Your task to perform on an android device: View the shopping cart on walmart.com. Add "amazon basics triple a" to the cart on walmart.com, then select checkout. Image 0: 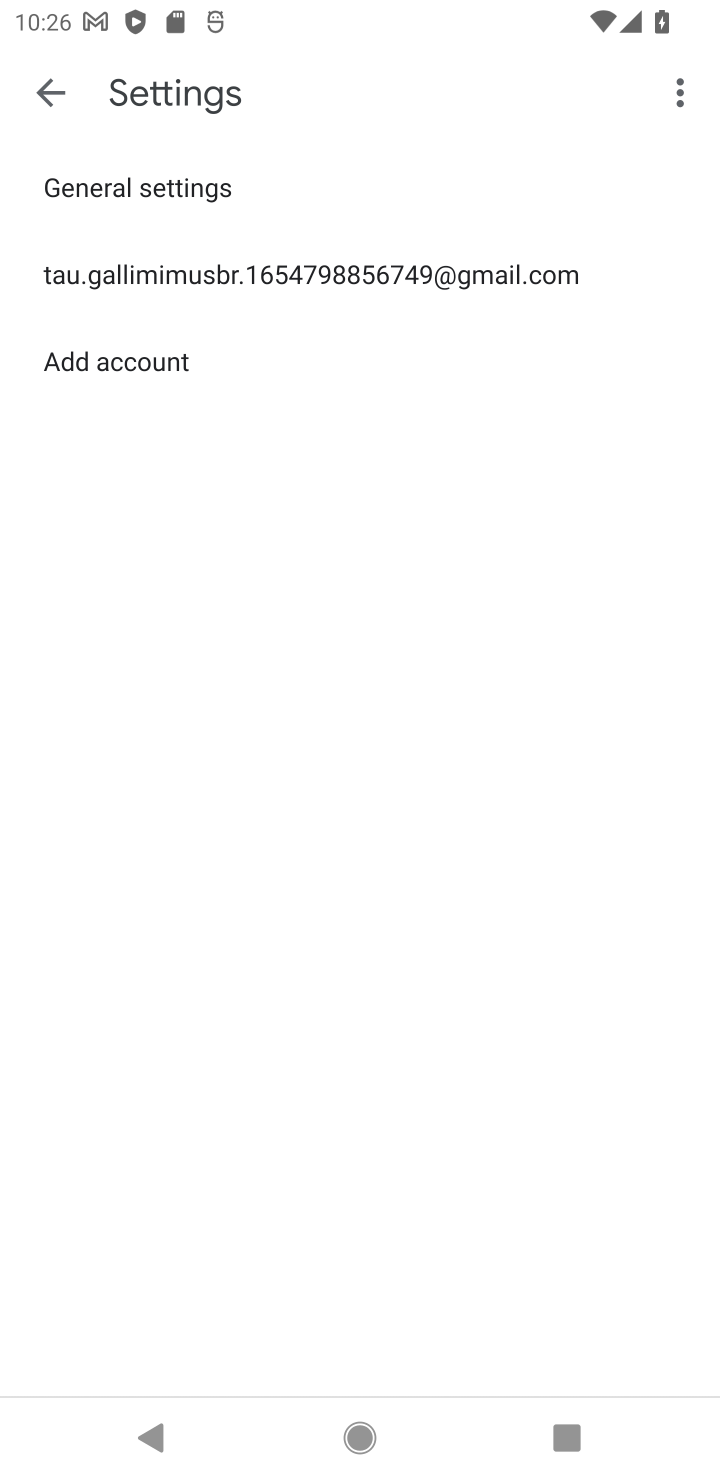
Step 0: press home button
Your task to perform on an android device: View the shopping cart on walmart.com. Add "amazon basics triple a" to the cart on walmart.com, then select checkout. Image 1: 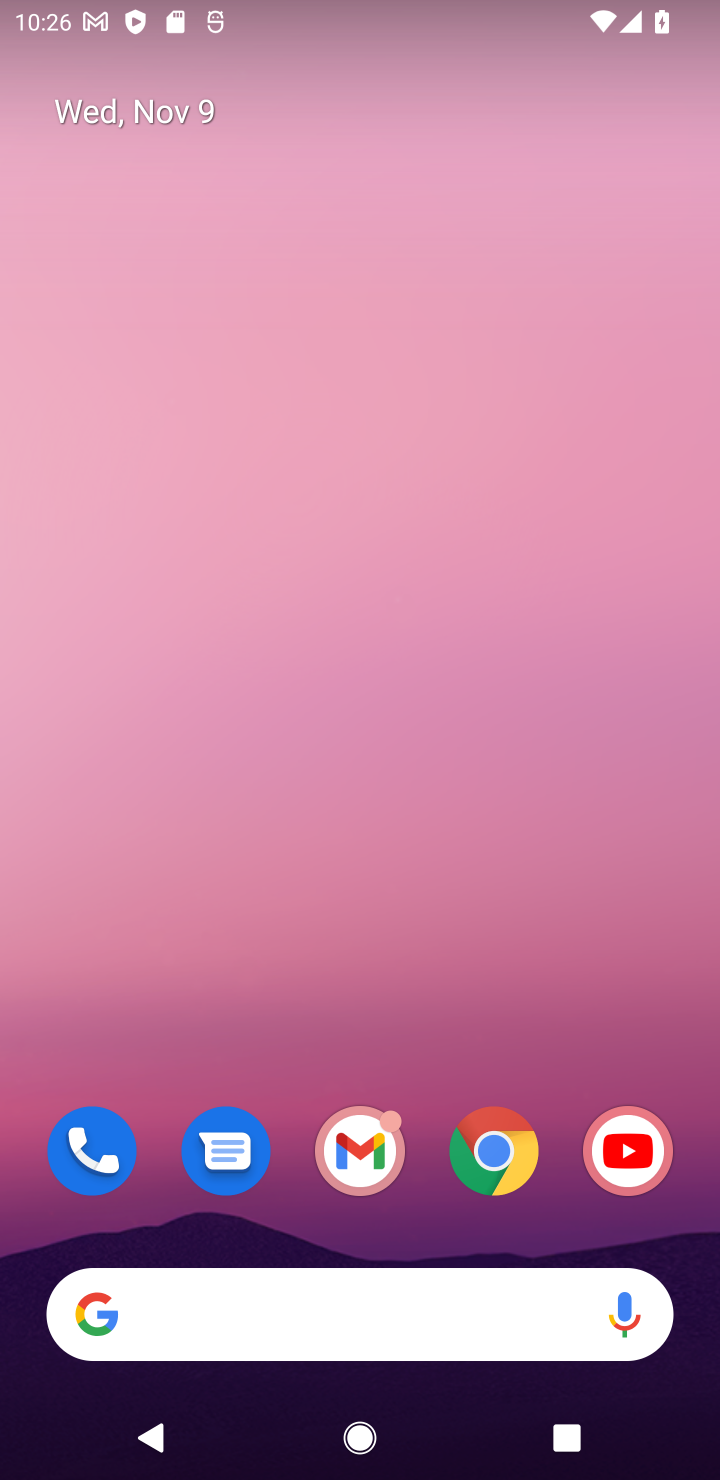
Step 1: click (490, 1144)
Your task to perform on an android device: View the shopping cart on walmart.com. Add "amazon basics triple a" to the cart on walmart.com, then select checkout. Image 2: 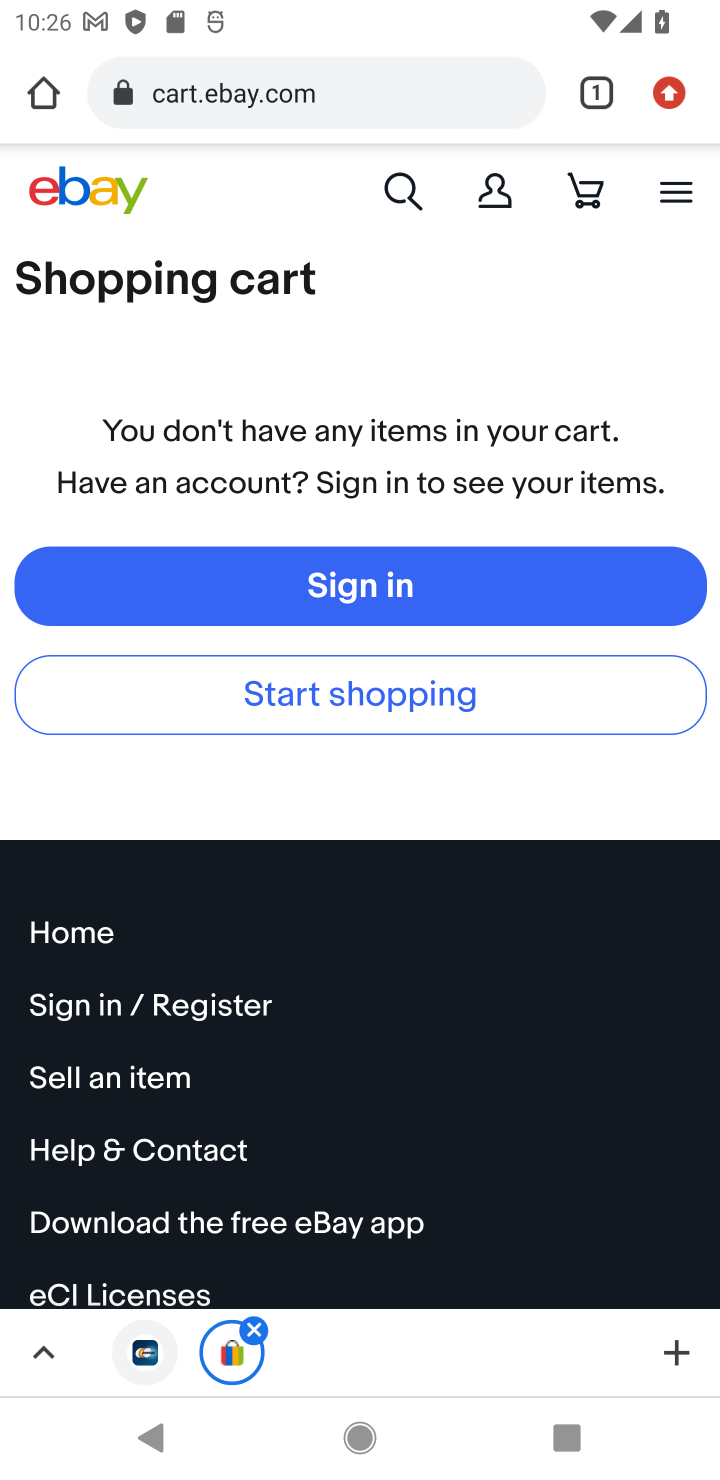
Step 2: click (465, 111)
Your task to perform on an android device: View the shopping cart on walmart.com. Add "amazon basics triple a" to the cart on walmart.com, then select checkout. Image 3: 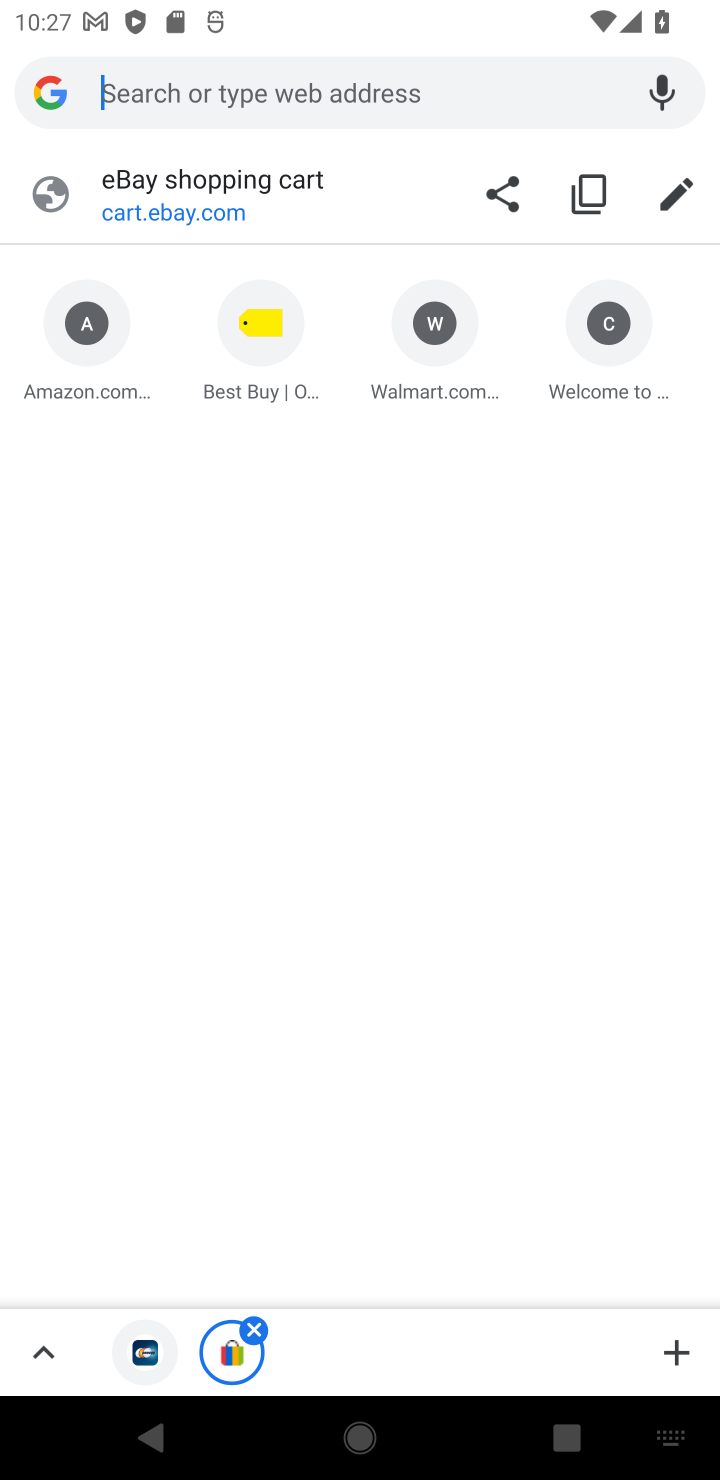
Step 3: click (442, 331)
Your task to perform on an android device: View the shopping cart on walmart.com. Add "amazon basics triple a" to the cart on walmart.com, then select checkout. Image 4: 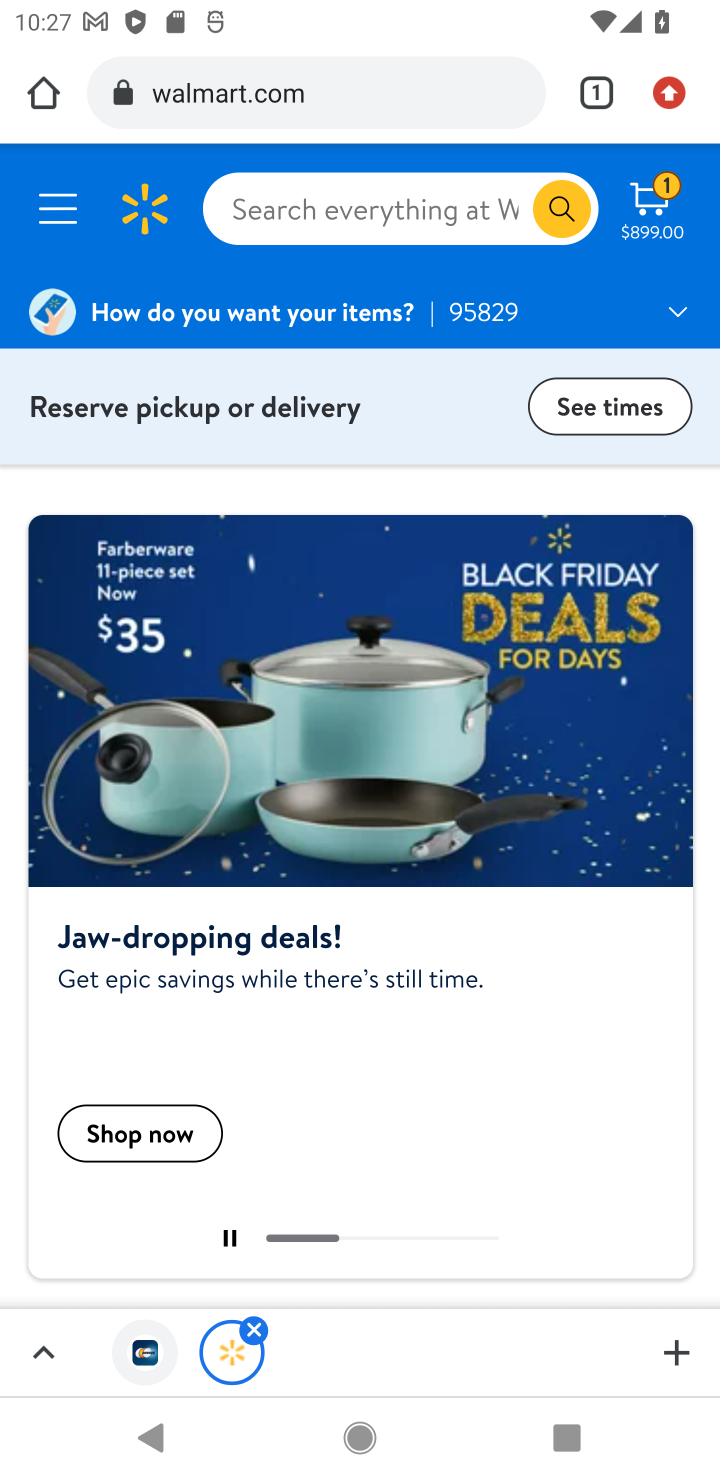
Step 4: click (646, 213)
Your task to perform on an android device: View the shopping cart on walmart.com. Add "amazon basics triple a" to the cart on walmart.com, then select checkout. Image 5: 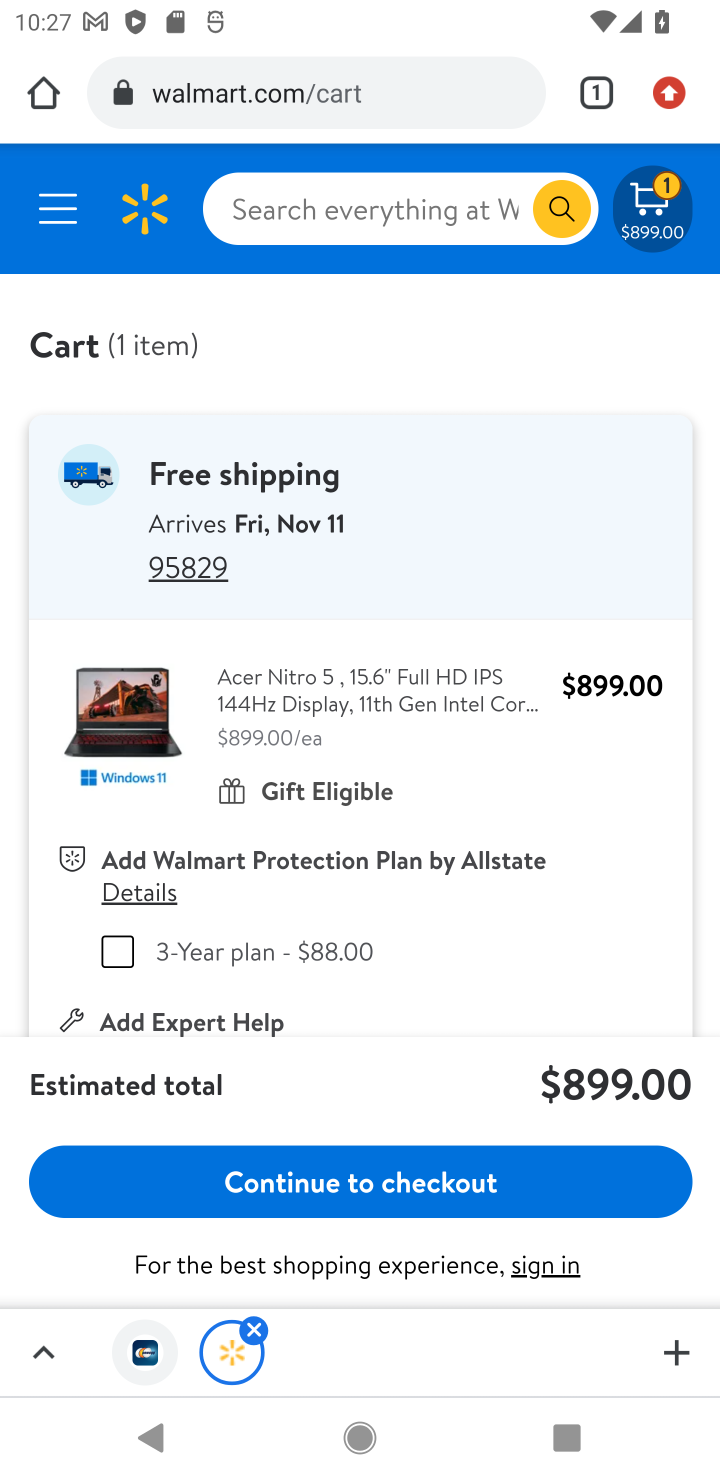
Step 5: click (359, 188)
Your task to perform on an android device: View the shopping cart on walmart.com. Add "amazon basics triple a" to the cart on walmart.com, then select checkout. Image 6: 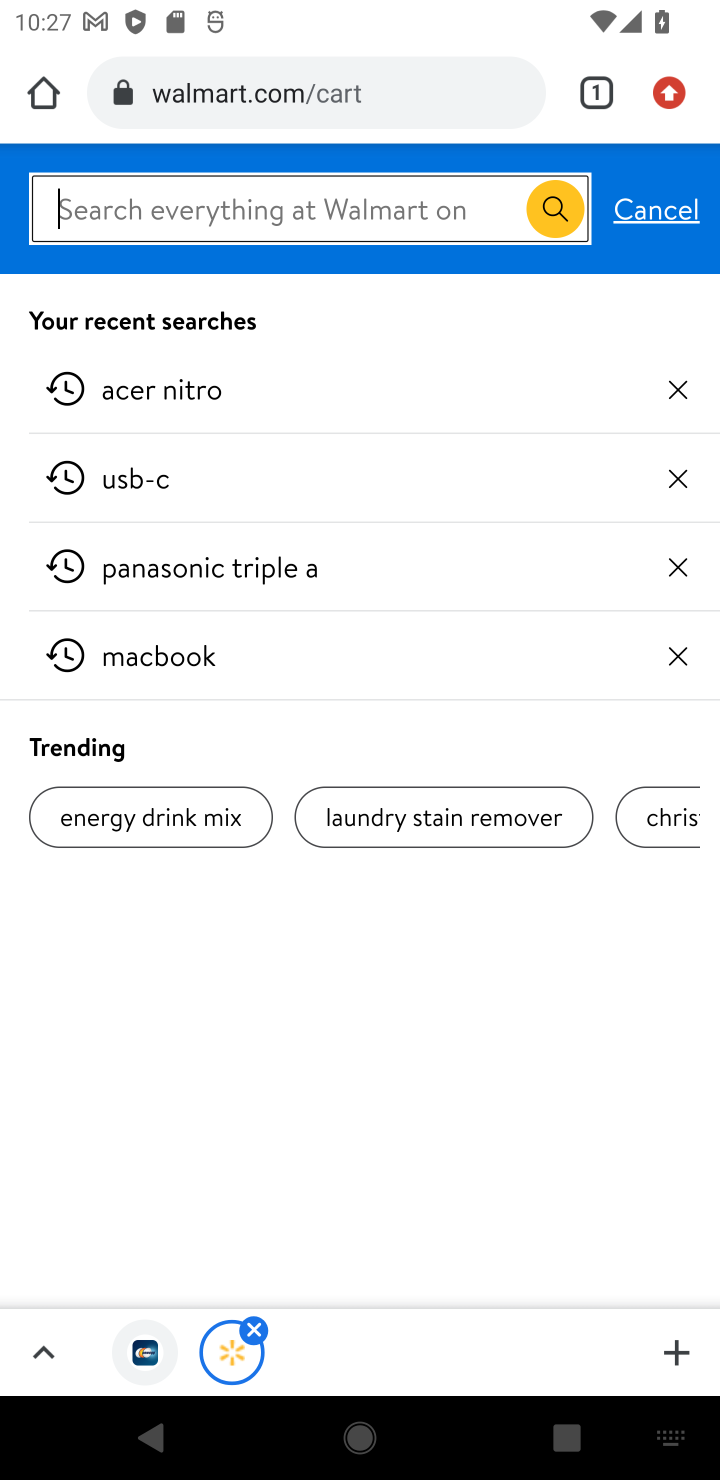
Step 6: type "amazon basics triple a"
Your task to perform on an android device: View the shopping cart on walmart.com. Add "amazon basics triple a" to the cart on walmart.com, then select checkout. Image 7: 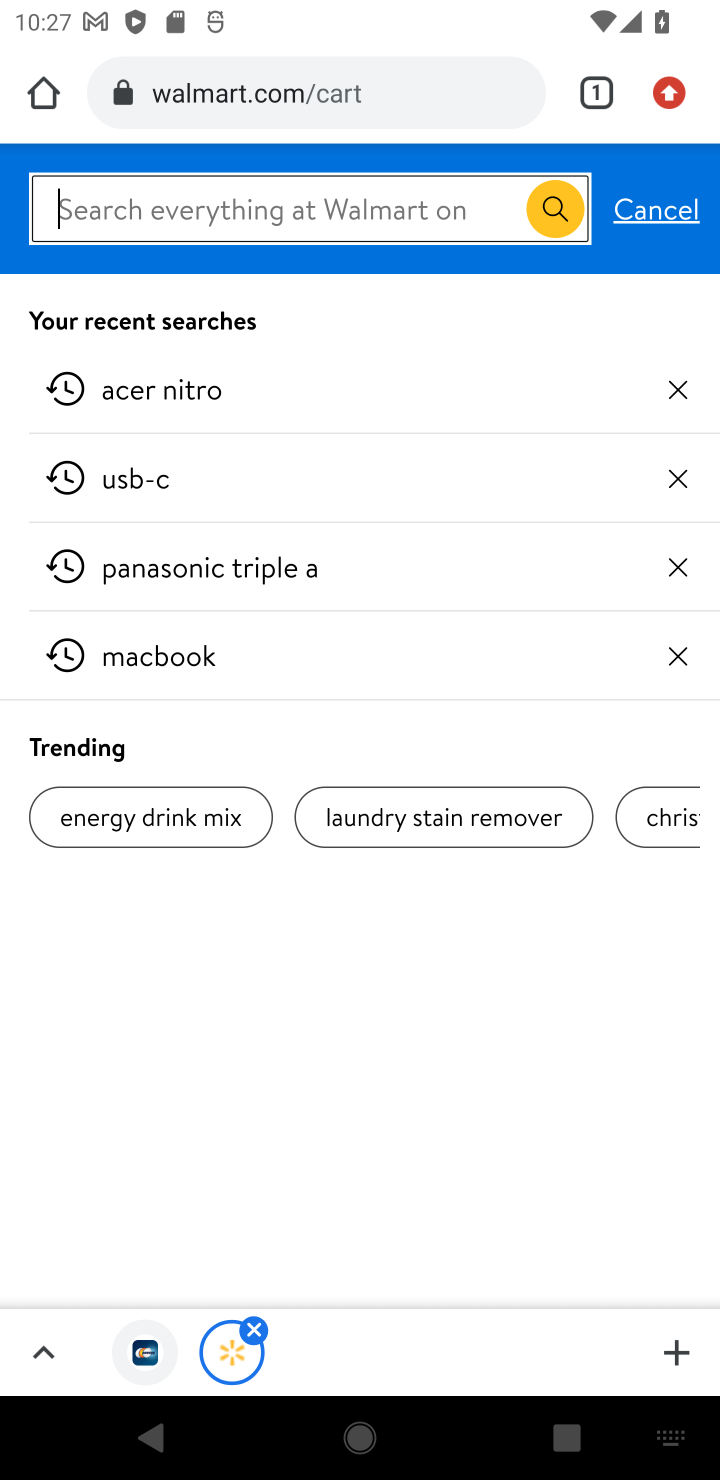
Step 7: press enter
Your task to perform on an android device: View the shopping cart on walmart.com. Add "amazon basics triple a" to the cart on walmart.com, then select checkout. Image 8: 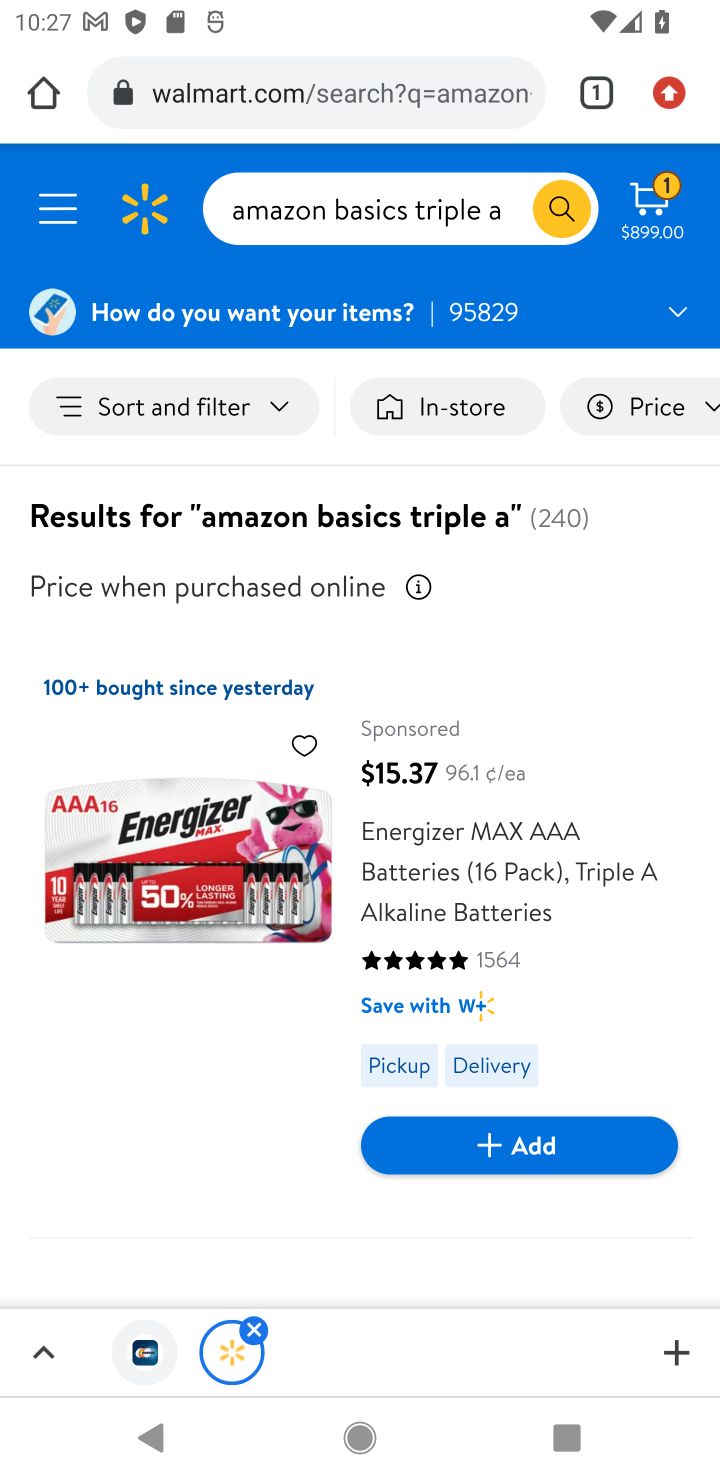
Step 8: drag from (624, 990) to (628, 691)
Your task to perform on an android device: View the shopping cart on walmart.com. Add "amazon basics triple a" to the cart on walmart.com, then select checkout. Image 9: 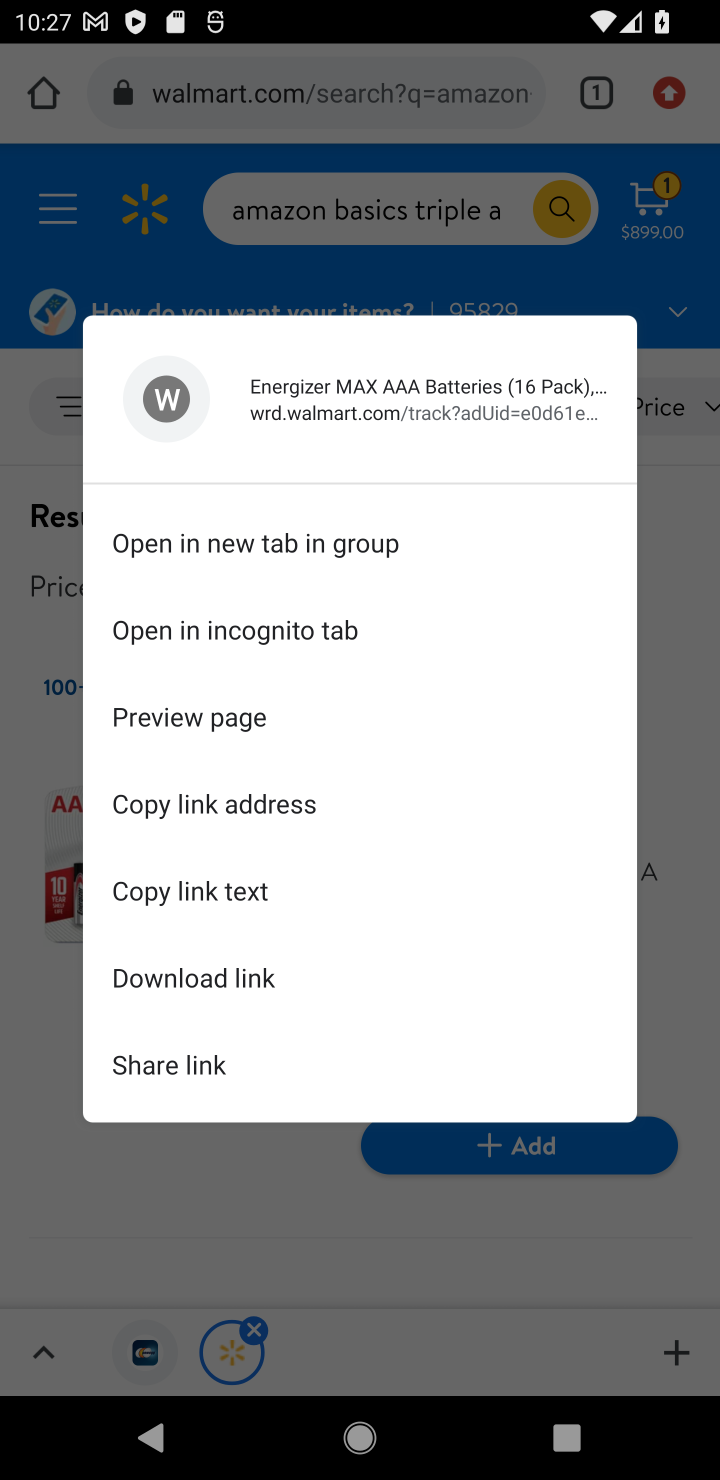
Step 9: click (660, 682)
Your task to perform on an android device: View the shopping cart on walmart.com. Add "amazon basics triple a" to the cart on walmart.com, then select checkout. Image 10: 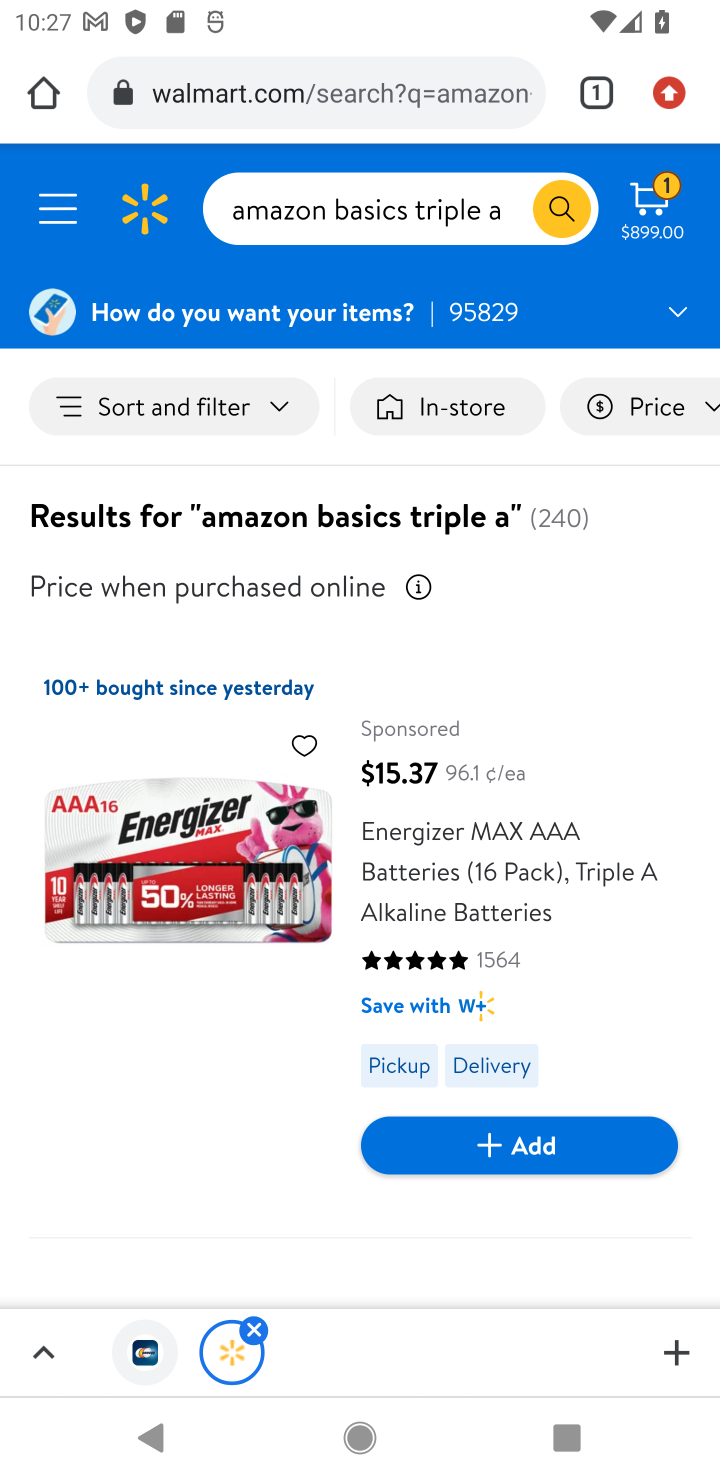
Step 10: task complete